Your task to perform on an android device: clear all cookies in the chrome app Image 0: 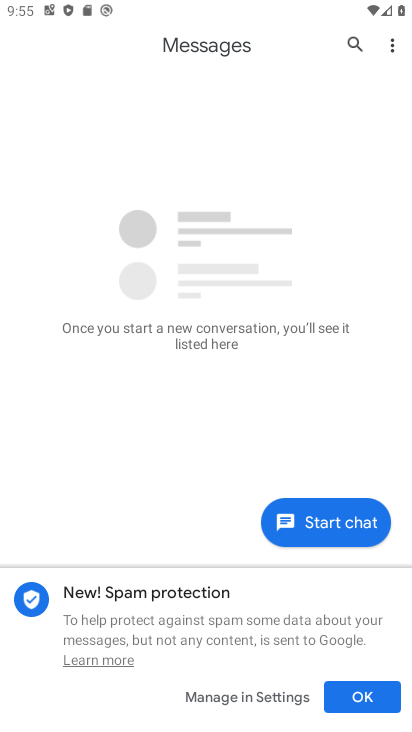
Step 0: press home button
Your task to perform on an android device: clear all cookies in the chrome app Image 1: 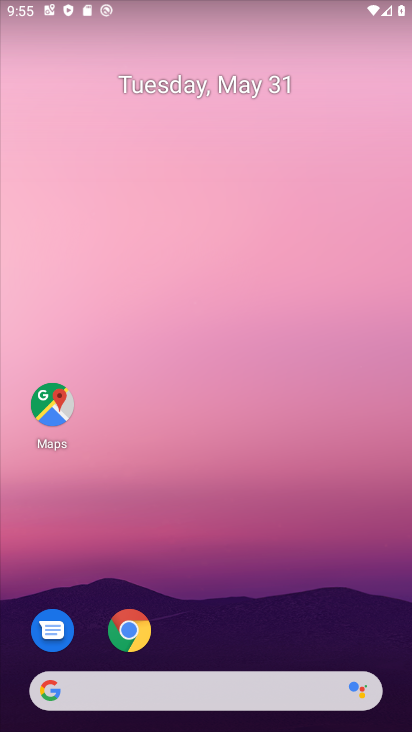
Step 1: drag from (234, 131) to (229, 45)
Your task to perform on an android device: clear all cookies in the chrome app Image 2: 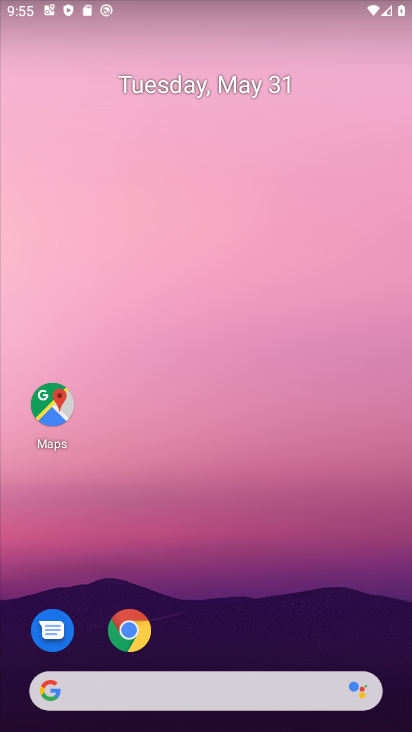
Step 2: drag from (231, 668) to (280, 8)
Your task to perform on an android device: clear all cookies in the chrome app Image 3: 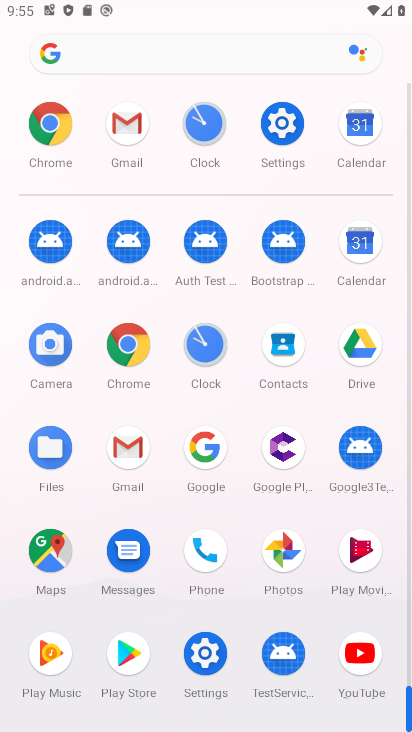
Step 3: click (66, 152)
Your task to perform on an android device: clear all cookies in the chrome app Image 4: 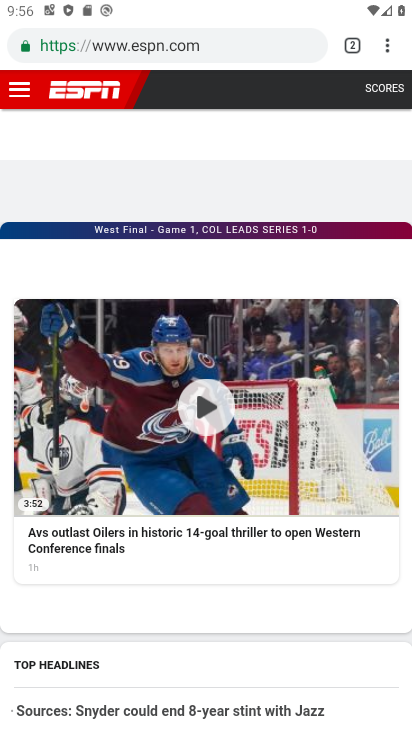
Step 4: click (389, 51)
Your task to perform on an android device: clear all cookies in the chrome app Image 5: 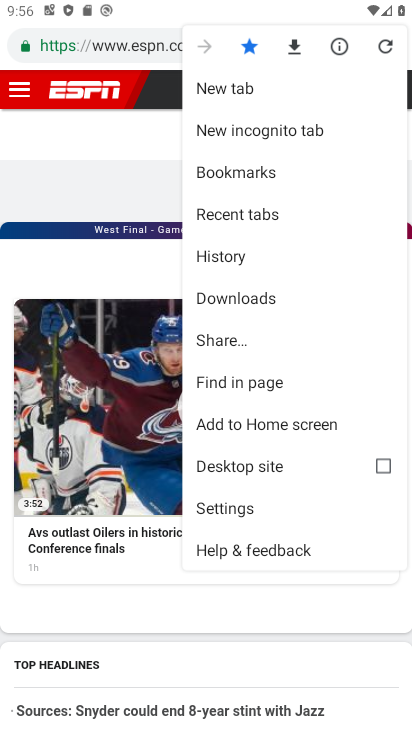
Step 5: click (257, 515)
Your task to perform on an android device: clear all cookies in the chrome app Image 6: 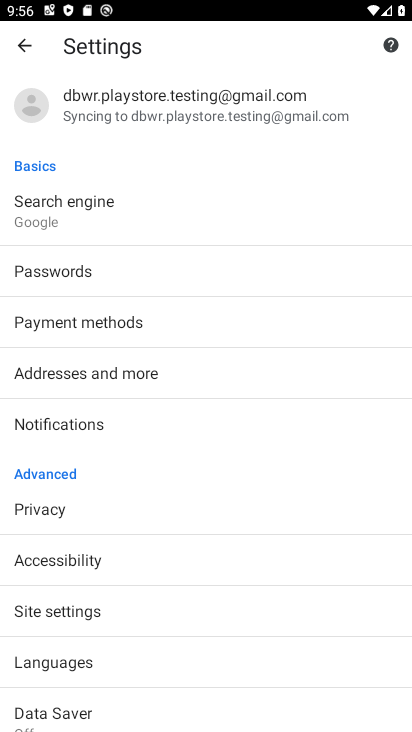
Step 6: click (125, 612)
Your task to perform on an android device: clear all cookies in the chrome app Image 7: 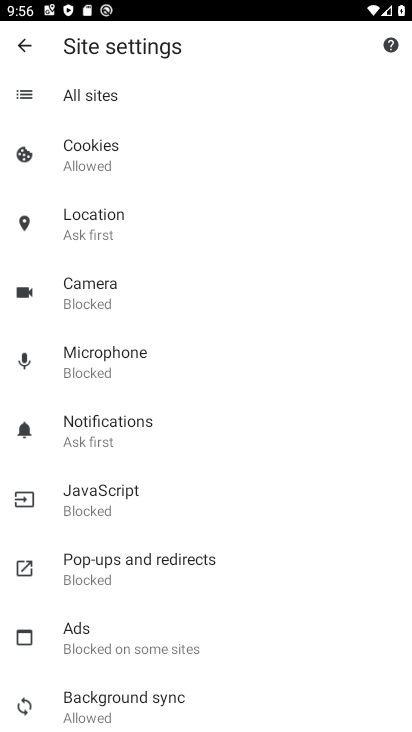
Step 7: click (152, 156)
Your task to perform on an android device: clear all cookies in the chrome app Image 8: 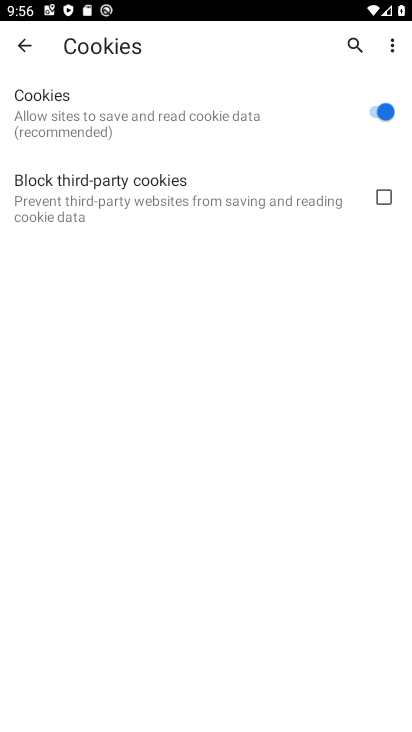
Step 8: task complete